Your task to perform on an android device: install app "Pinterest" Image 0: 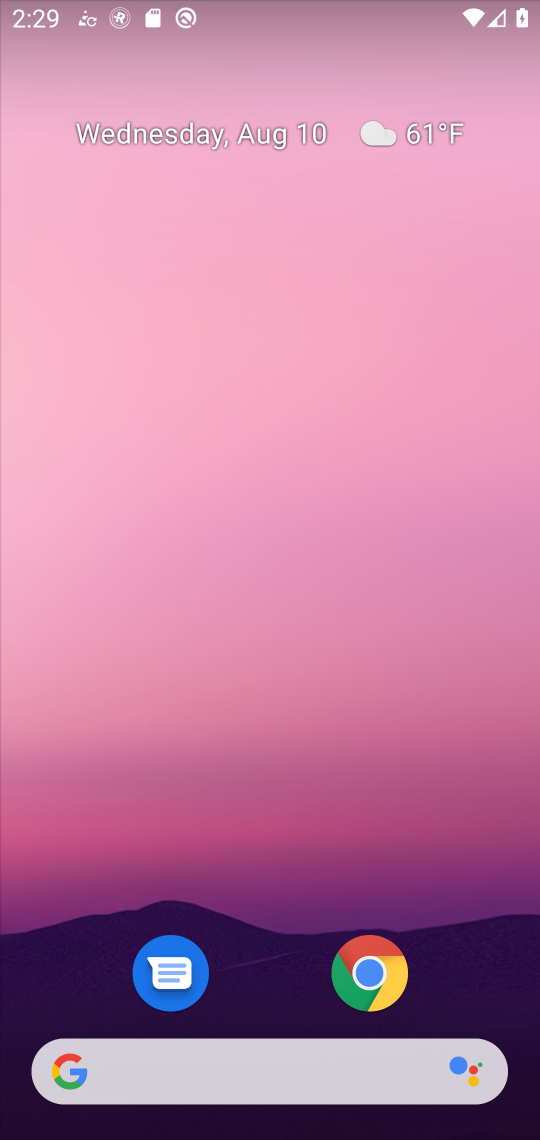
Step 0: drag from (174, 889) to (185, 168)
Your task to perform on an android device: install app "Pinterest" Image 1: 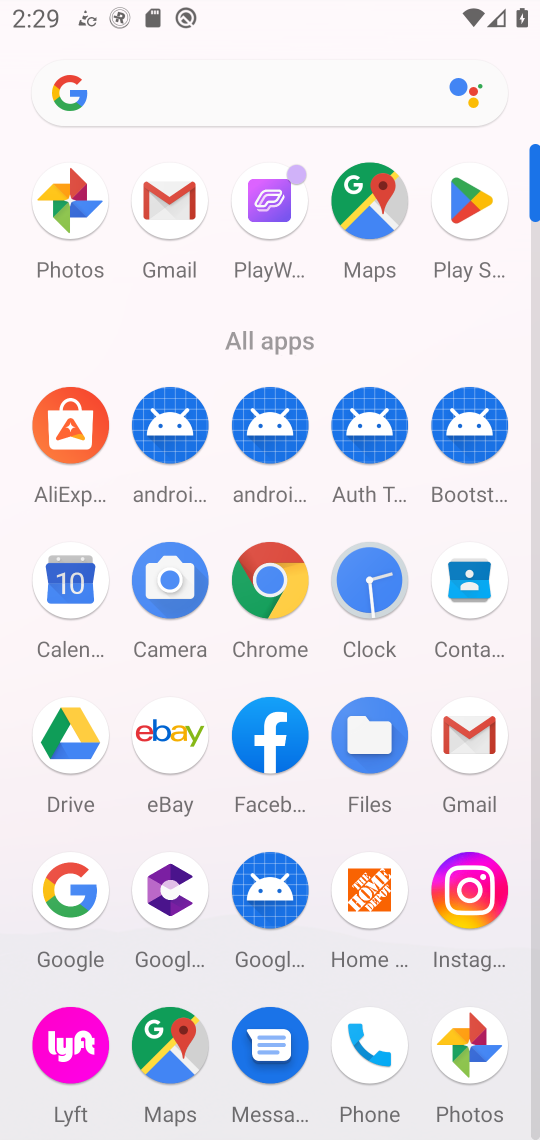
Step 1: click (471, 172)
Your task to perform on an android device: install app "Pinterest" Image 2: 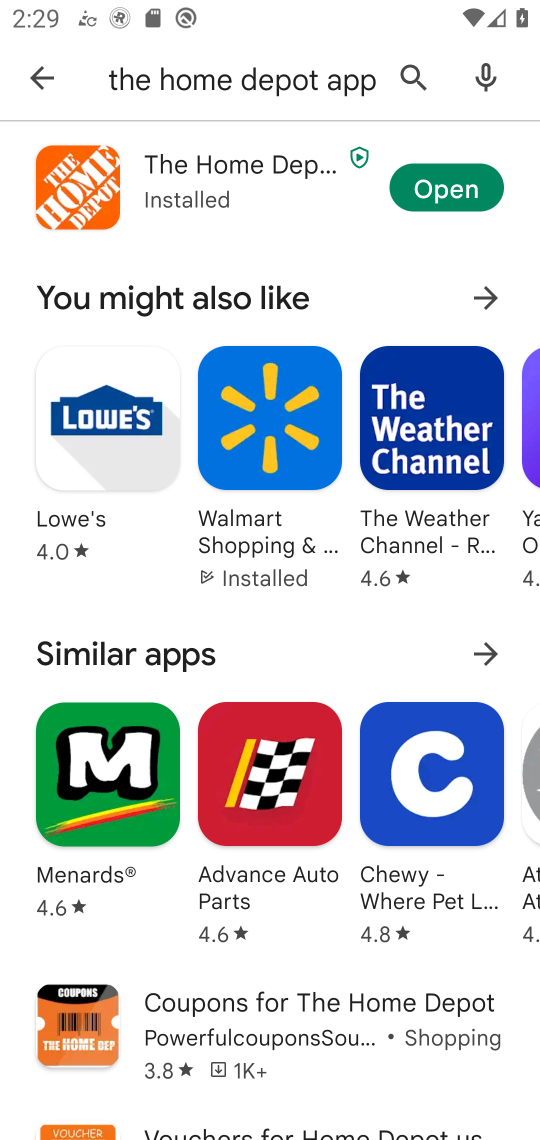
Step 2: click (41, 64)
Your task to perform on an android device: install app "Pinterest" Image 3: 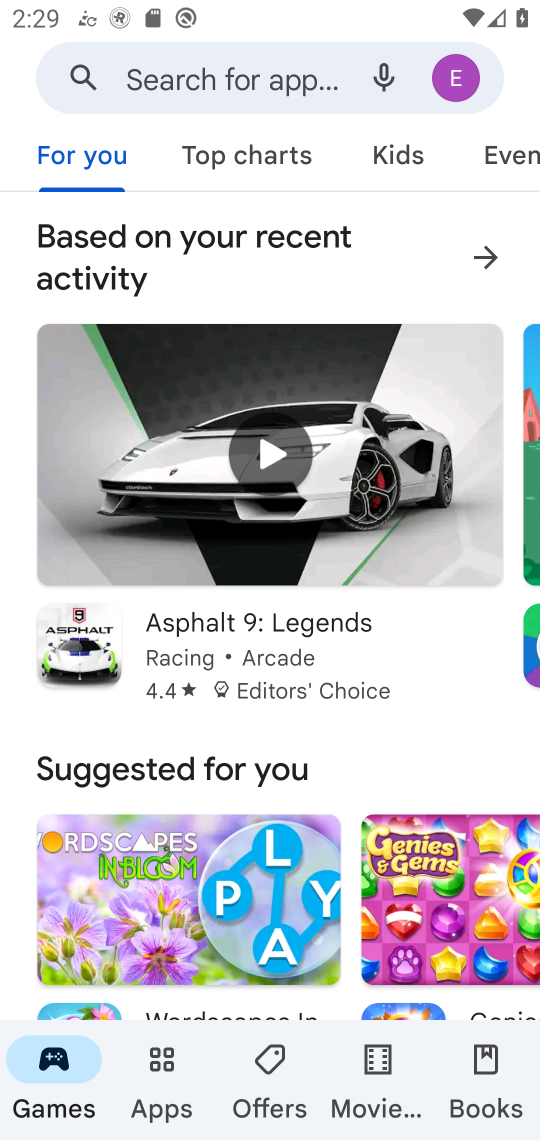
Step 3: click (183, 80)
Your task to perform on an android device: install app "Pinterest" Image 4: 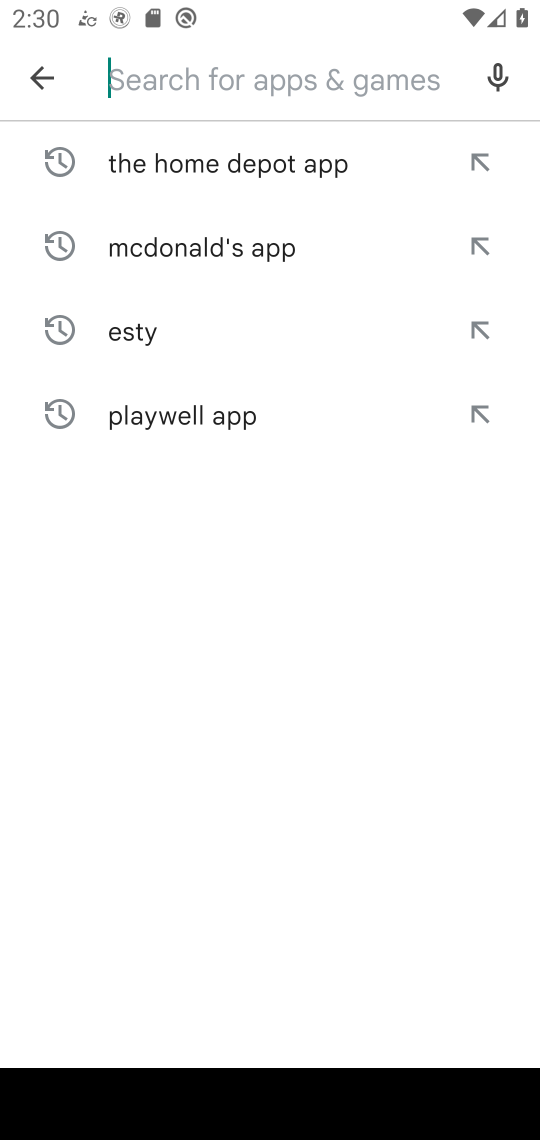
Step 4: type "pinterset"
Your task to perform on an android device: install app "Pinterest" Image 5: 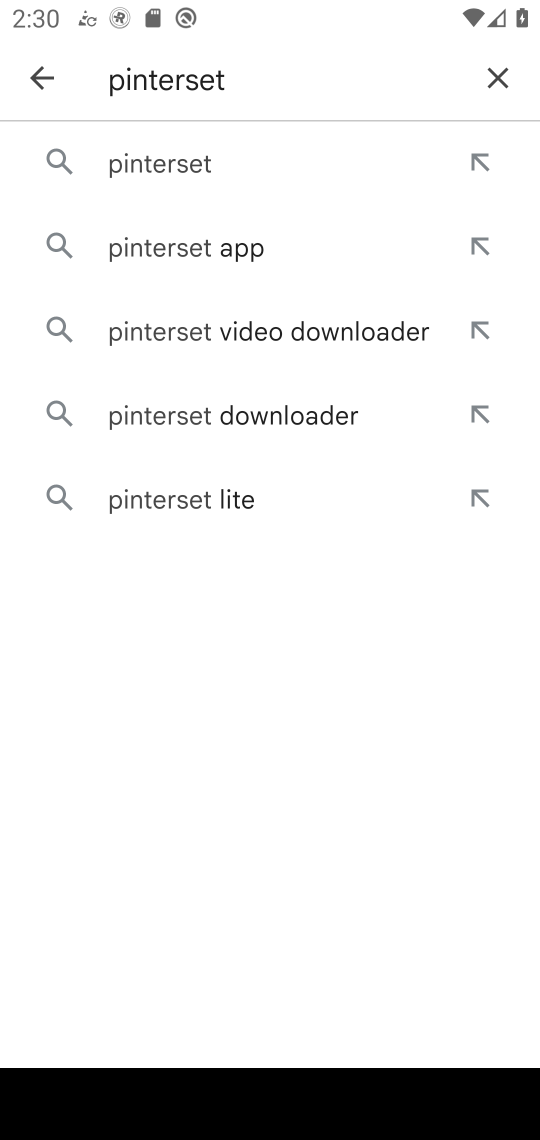
Step 5: click (226, 258)
Your task to perform on an android device: install app "Pinterest" Image 6: 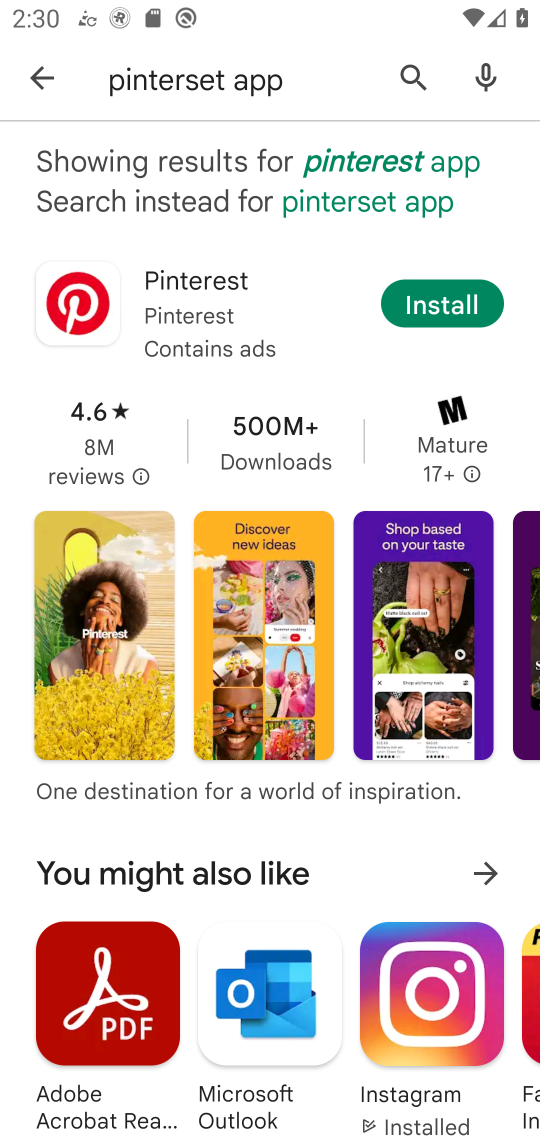
Step 6: click (391, 287)
Your task to perform on an android device: install app "Pinterest" Image 7: 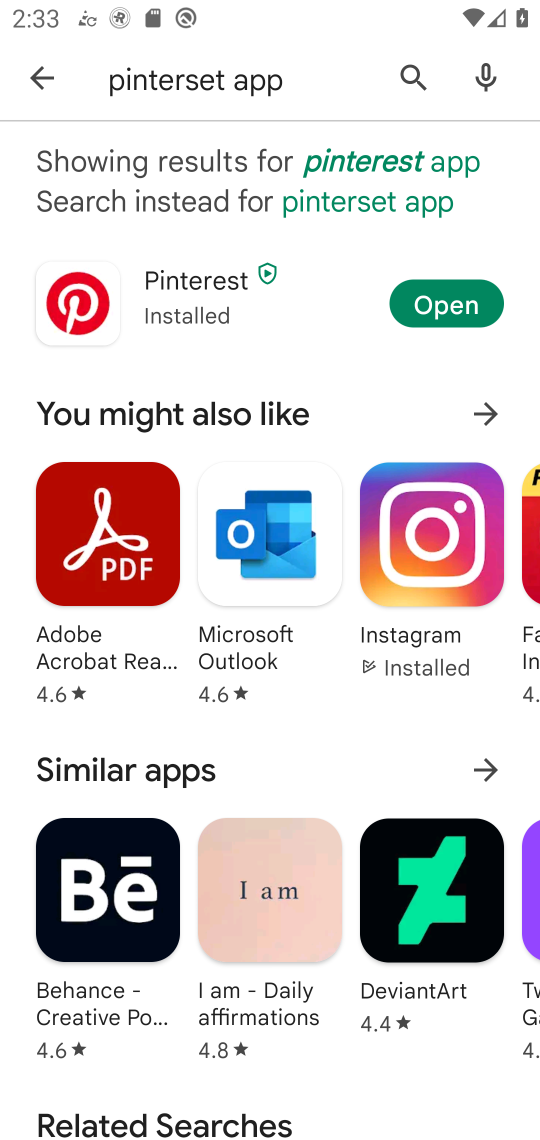
Step 7: click (478, 282)
Your task to perform on an android device: install app "Pinterest" Image 8: 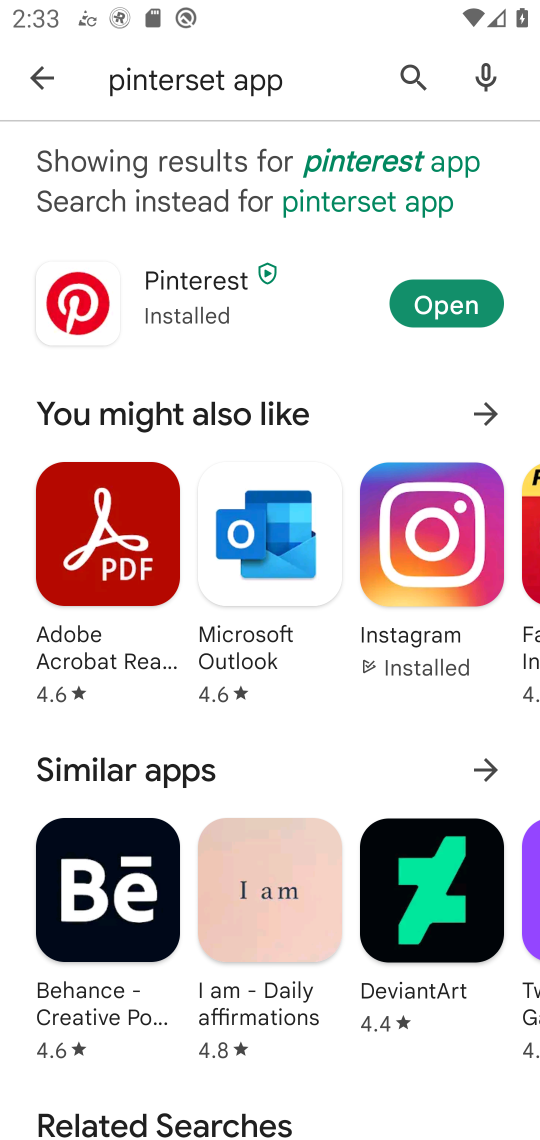
Step 8: task complete